Your task to perform on an android device: Open wifi settings Image 0: 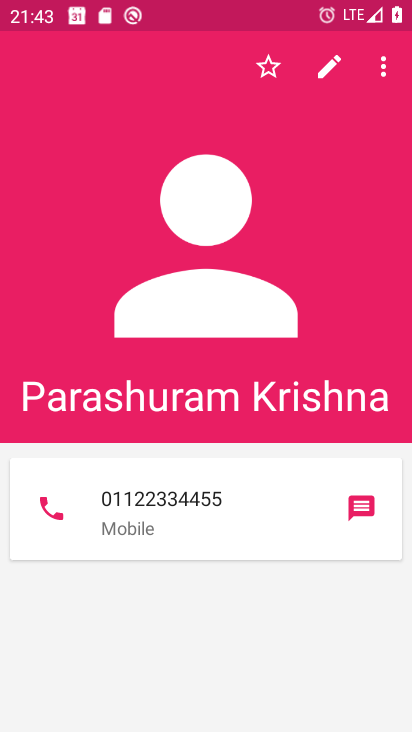
Step 0: press home button
Your task to perform on an android device: Open wifi settings Image 1: 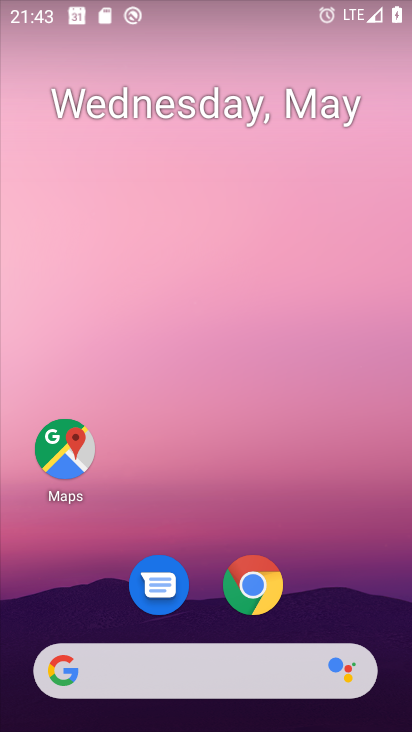
Step 1: drag from (200, 594) to (206, 132)
Your task to perform on an android device: Open wifi settings Image 2: 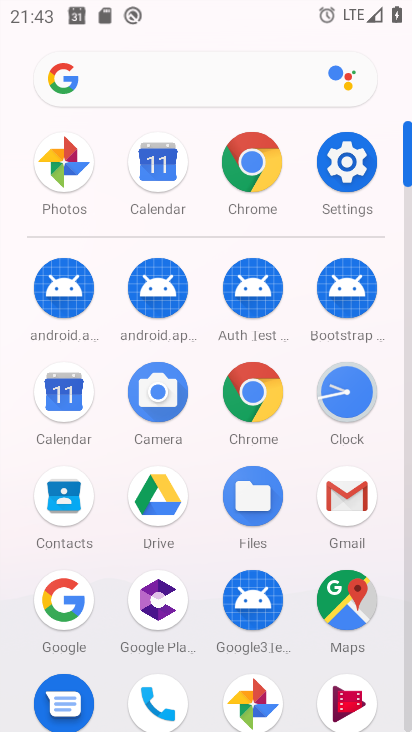
Step 2: click (337, 156)
Your task to perform on an android device: Open wifi settings Image 3: 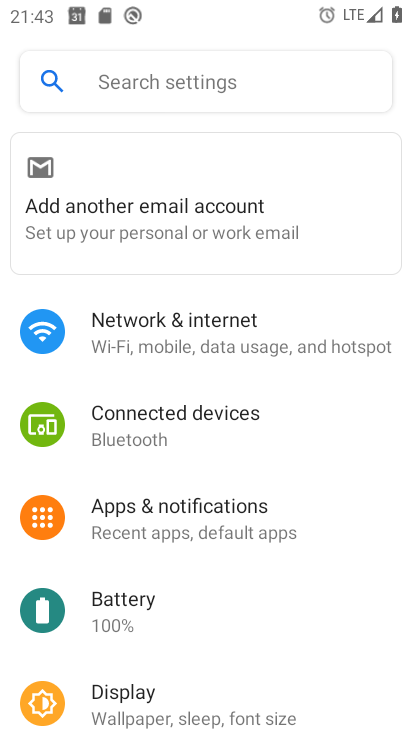
Step 3: click (198, 337)
Your task to perform on an android device: Open wifi settings Image 4: 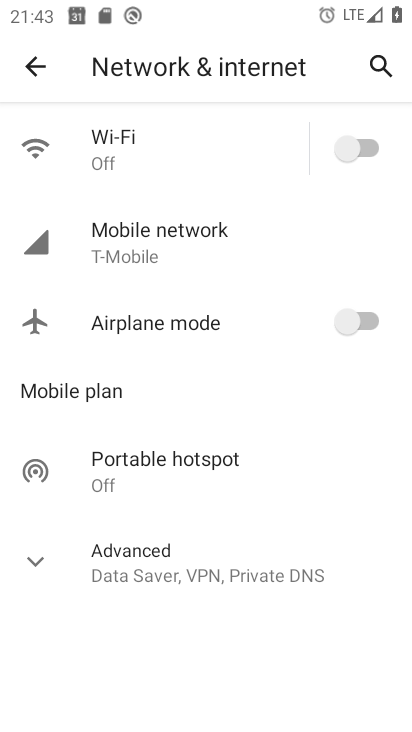
Step 4: click (128, 138)
Your task to perform on an android device: Open wifi settings Image 5: 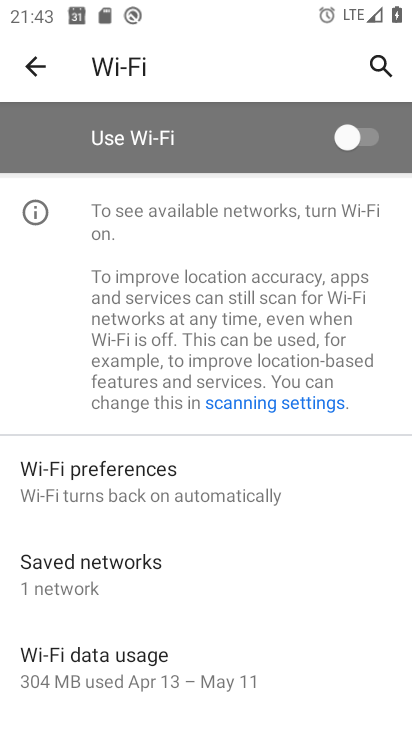
Step 5: task complete